Your task to perform on an android device: toggle location history Image 0: 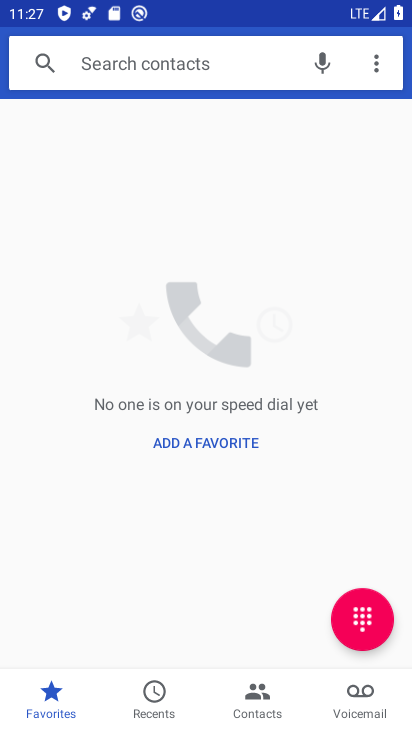
Step 0: press home button
Your task to perform on an android device: toggle location history Image 1: 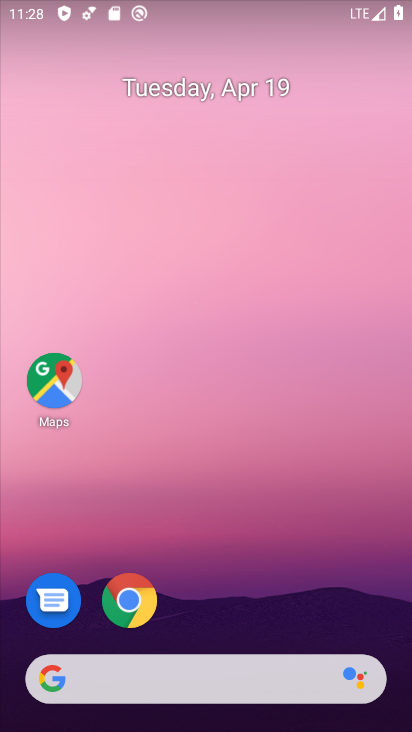
Step 1: click (42, 385)
Your task to perform on an android device: toggle location history Image 2: 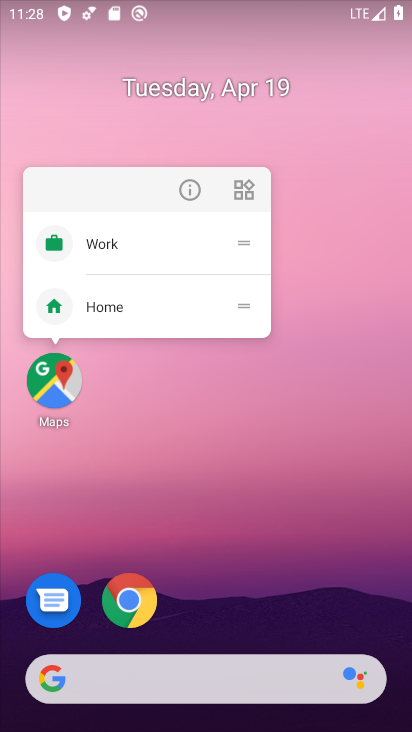
Step 2: click (48, 387)
Your task to perform on an android device: toggle location history Image 3: 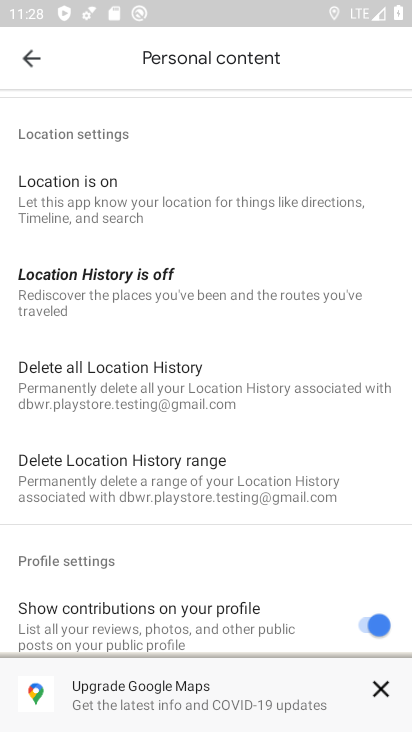
Step 3: click (128, 288)
Your task to perform on an android device: toggle location history Image 4: 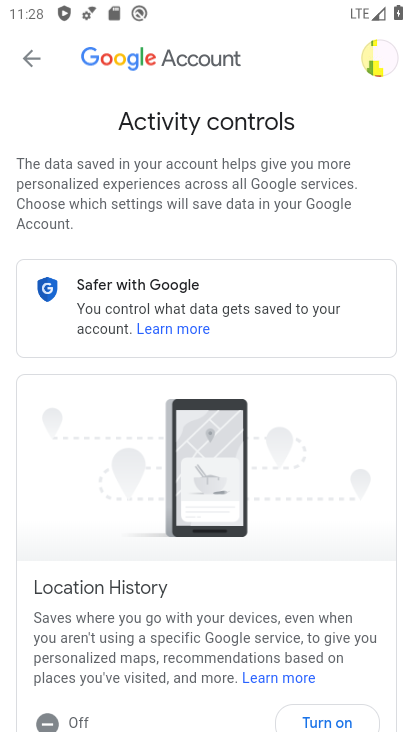
Step 4: drag from (276, 544) to (224, 92)
Your task to perform on an android device: toggle location history Image 5: 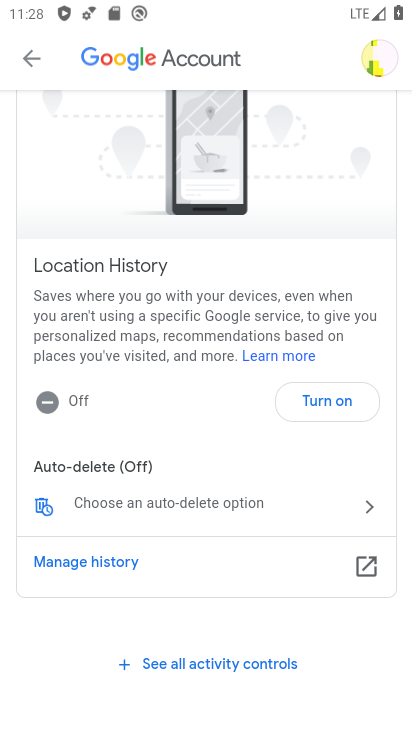
Step 5: click (311, 404)
Your task to perform on an android device: toggle location history Image 6: 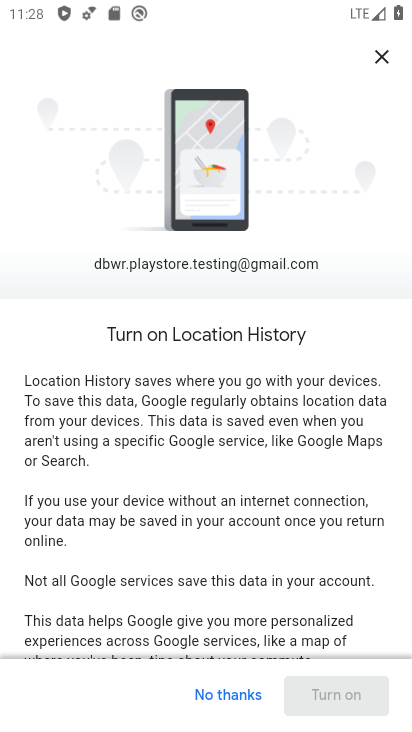
Step 6: drag from (265, 525) to (236, 82)
Your task to perform on an android device: toggle location history Image 7: 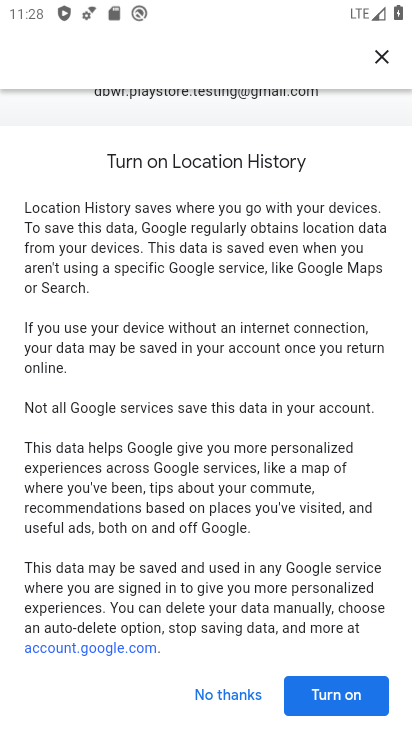
Step 7: drag from (255, 492) to (219, 143)
Your task to perform on an android device: toggle location history Image 8: 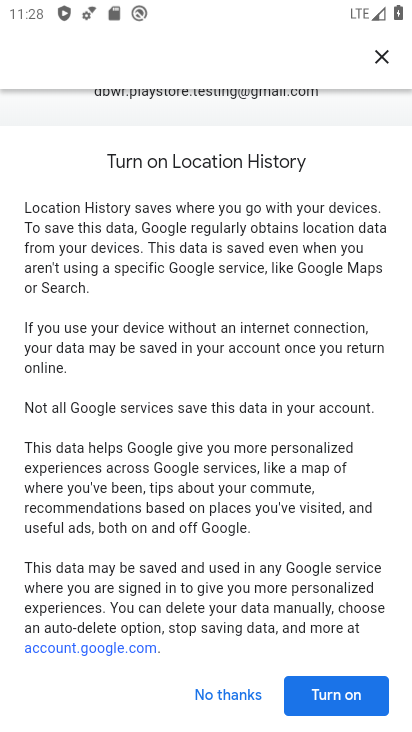
Step 8: click (346, 687)
Your task to perform on an android device: toggle location history Image 9: 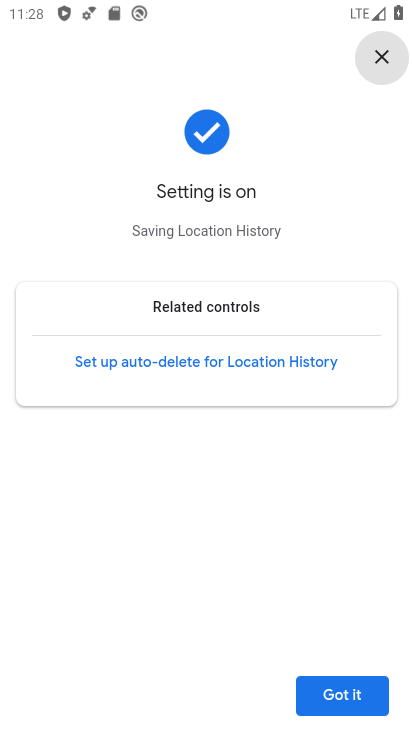
Step 9: click (344, 697)
Your task to perform on an android device: toggle location history Image 10: 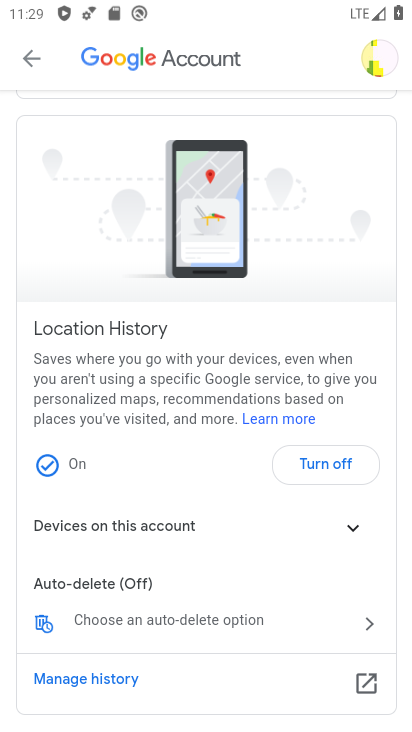
Step 10: task complete